Your task to perform on an android device: check google app version Image 0: 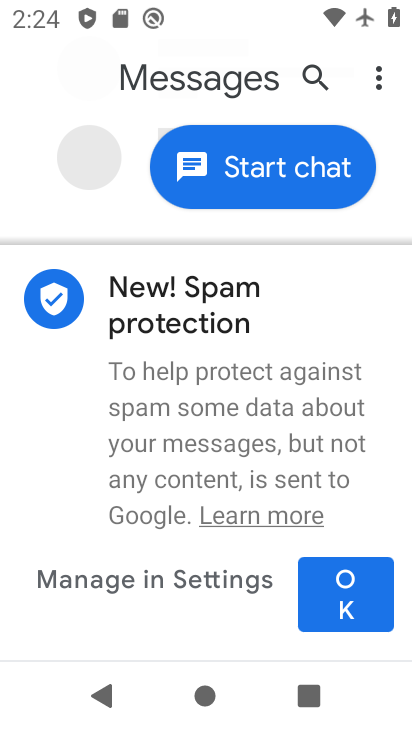
Step 0: press home button
Your task to perform on an android device: check google app version Image 1: 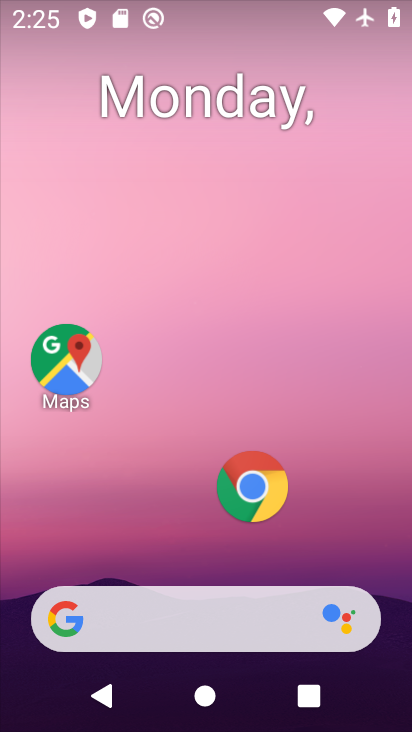
Step 1: drag from (179, 518) to (179, 4)
Your task to perform on an android device: check google app version Image 2: 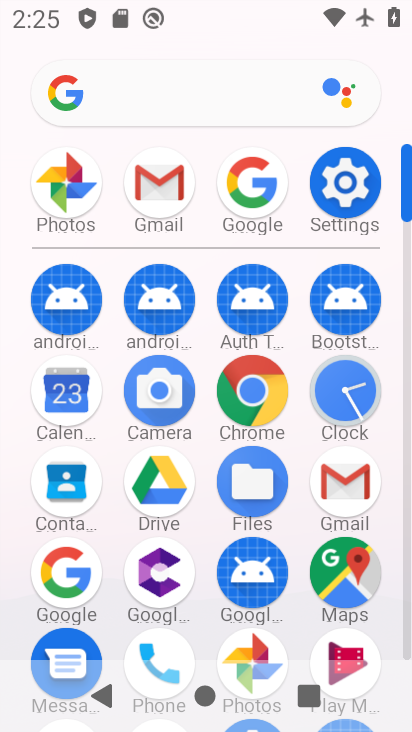
Step 2: click (63, 566)
Your task to perform on an android device: check google app version Image 3: 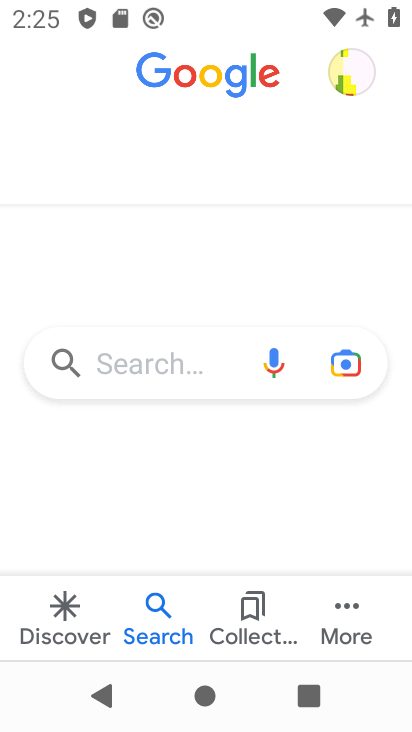
Step 3: click (364, 619)
Your task to perform on an android device: check google app version Image 4: 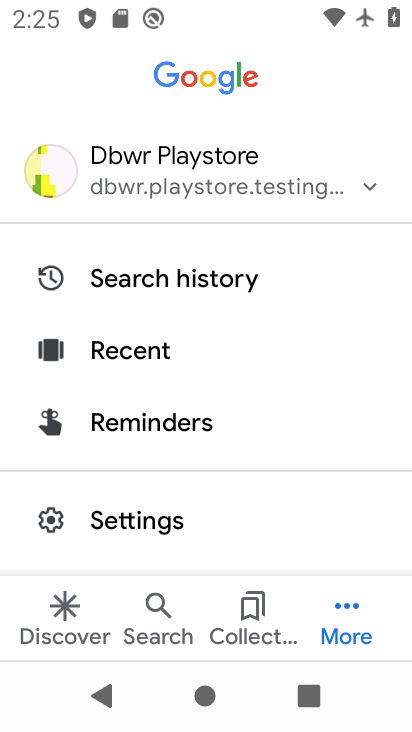
Step 4: drag from (164, 520) to (151, 296)
Your task to perform on an android device: check google app version Image 5: 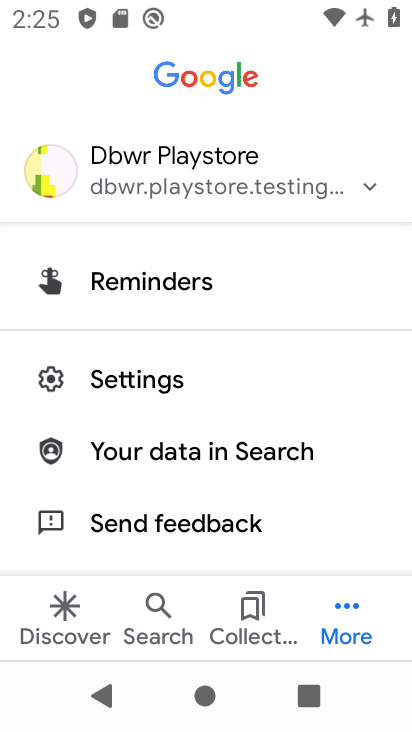
Step 5: click (154, 385)
Your task to perform on an android device: check google app version Image 6: 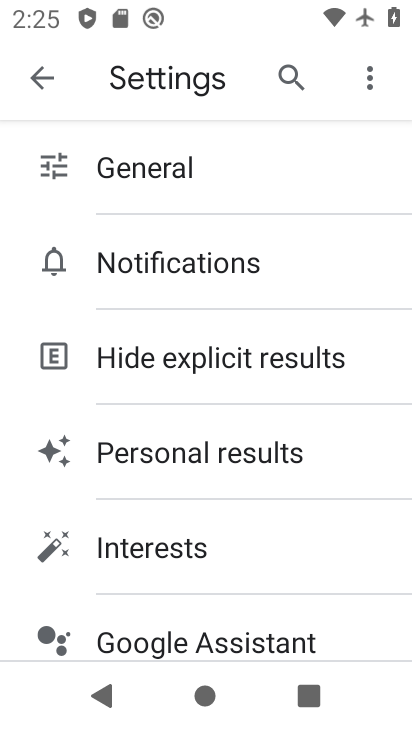
Step 6: drag from (201, 592) to (223, 387)
Your task to perform on an android device: check google app version Image 7: 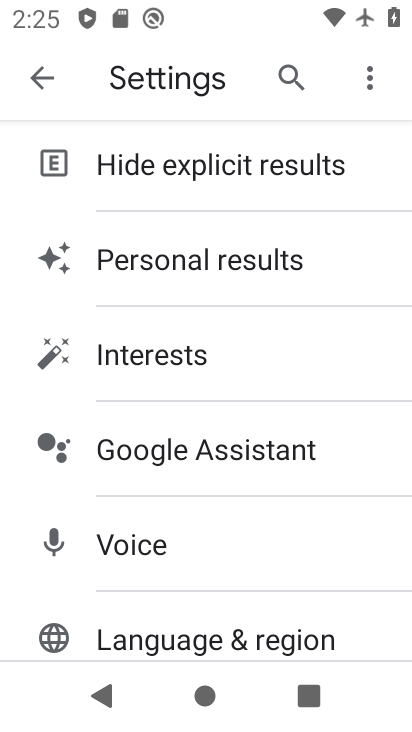
Step 7: drag from (231, 611) to (266, 323)
Your task to perform on an android device: check google app version Image 8: 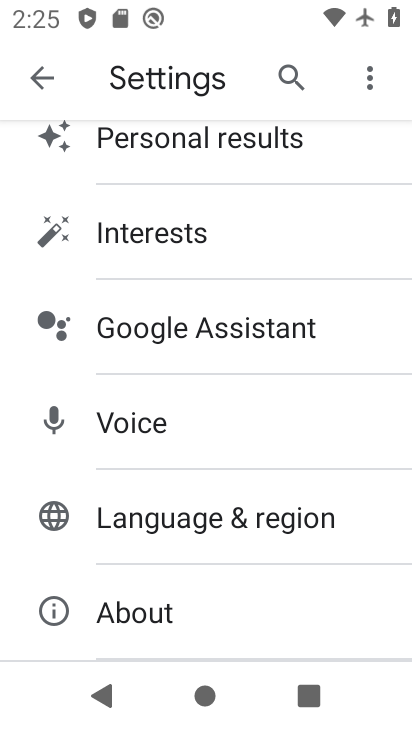
Step 8: click (206, 603)
Your task to perform on an android device: check google app version Image 9: 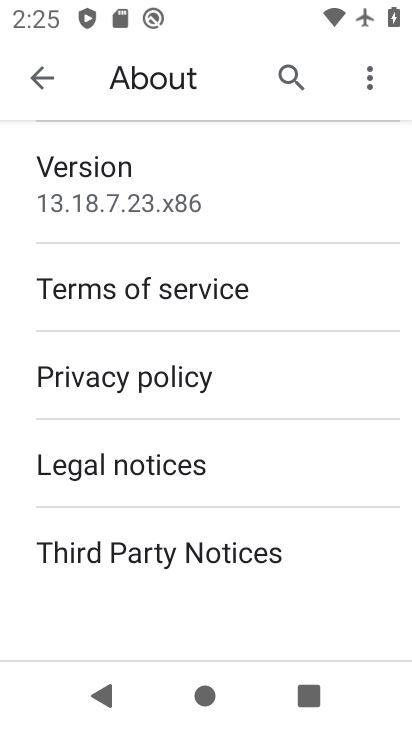
Step 9: click (197, 194)
Your task to perform on an android device: check google app version Image 10: 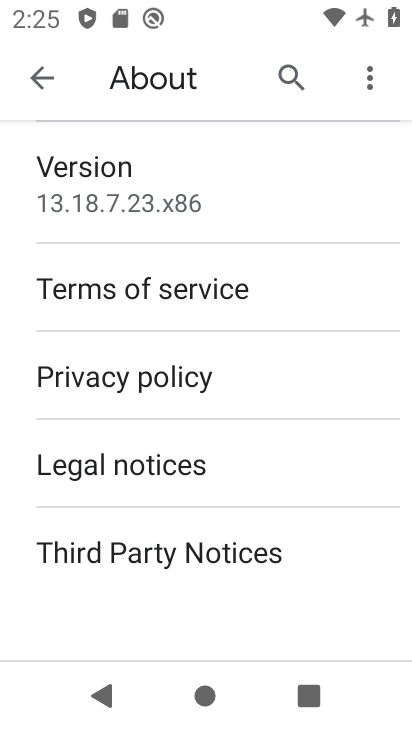
Step 10: task complete